Your task to perform on an android device: set an alarm Image 0: 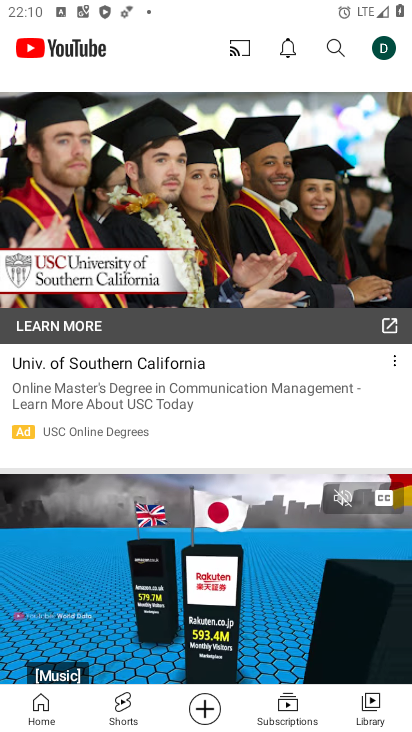
Step 0: press home button
Your task to perform on an android device: set an alarm Image 1: 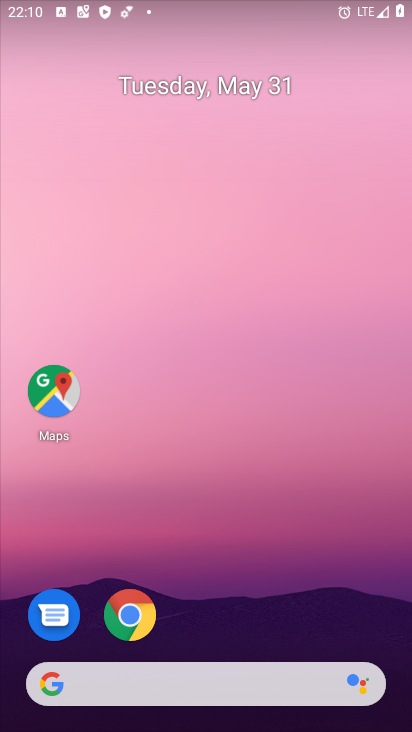
Step 1: drag from (277, 639) to (297, 30)
Your task to perform on an android device: set an alarm Image 2: 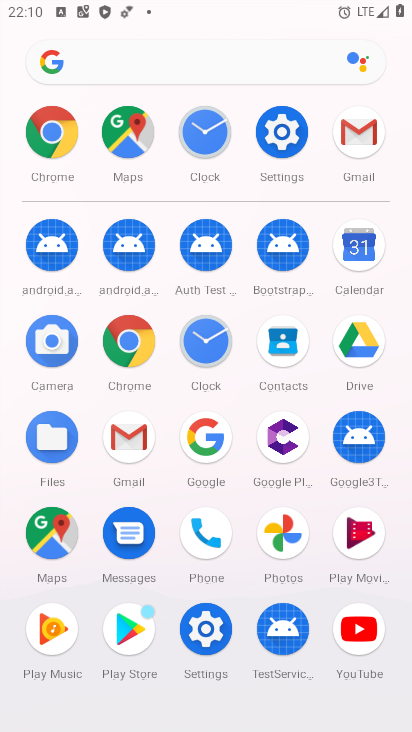
Step 2: click (206, 344)
Your task to perform on an android device: set an alarm Image 3: 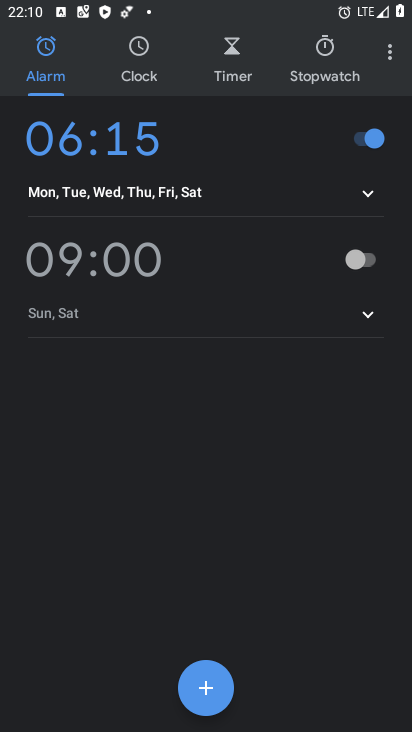
Step 3: task complete